Your task to perform on an android device: Open Chrome and go to settings Image 0: 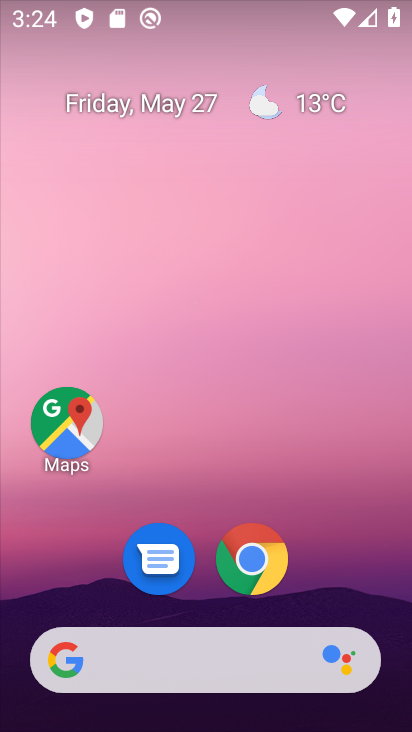
Step 0: drag from (318, 692) to (156, 16)
Your task to perform on an android device: Open Chrome and go to settings Image 1: 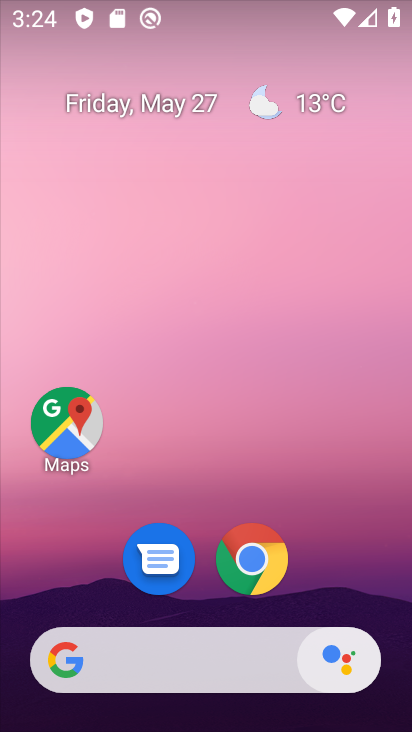
Step 1: drag from (251, 607) to (141, 96)
Your task to perform on an android device: Open Chrome and go to settings Image 2: 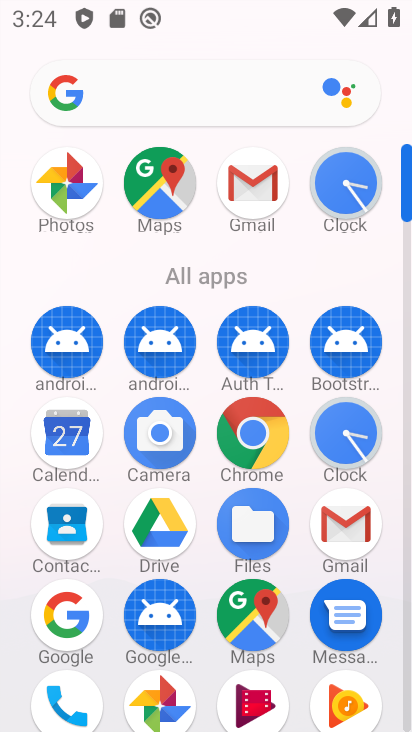
Step 2: drag from (211, 410) to (150, 145)
Your task to perform on an android device: Open Chrome and go to settings Image 3: 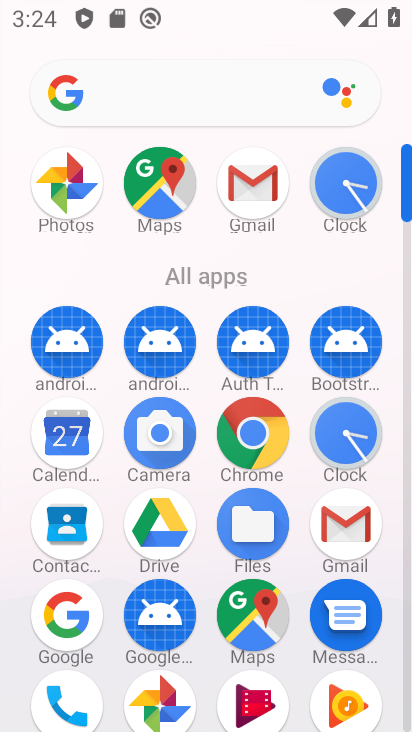
Step 3: click (207, 178)
Your task to perform on an android device: Open Chrome and go to settings Image 4: 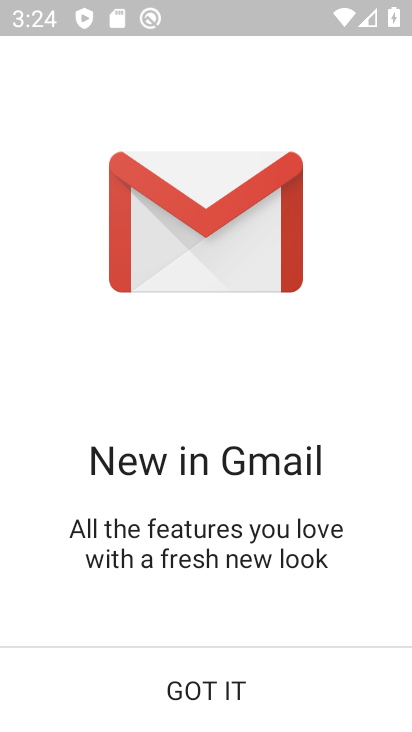
Step 4: press back button
Your task to perform on an android device: Open Chrome and go to settings Image 5: 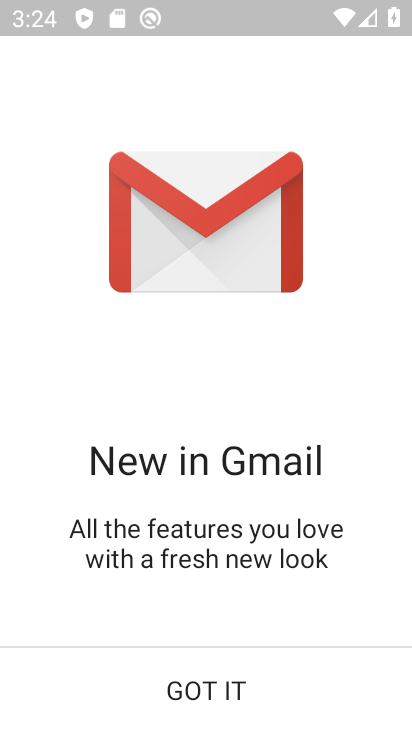
Step 5: press back button
Your task to perform on an android device: Open Chrome and go to settings Image 6: 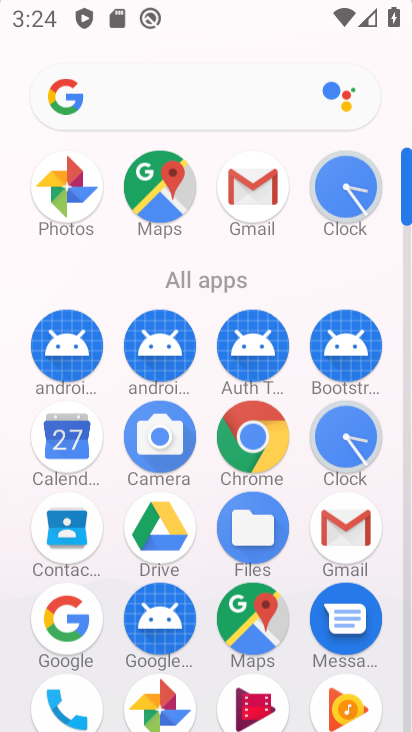
Step 6: press back button
Your task to perform on an android device: Open Chrome and go to settings Image 7: 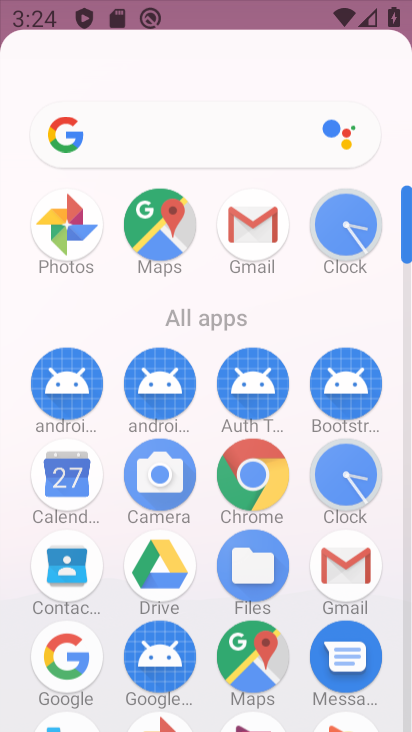
Step 7: click (240, 684)
Your task to perform on an android device: Open Chrome and go to settings Image 8: 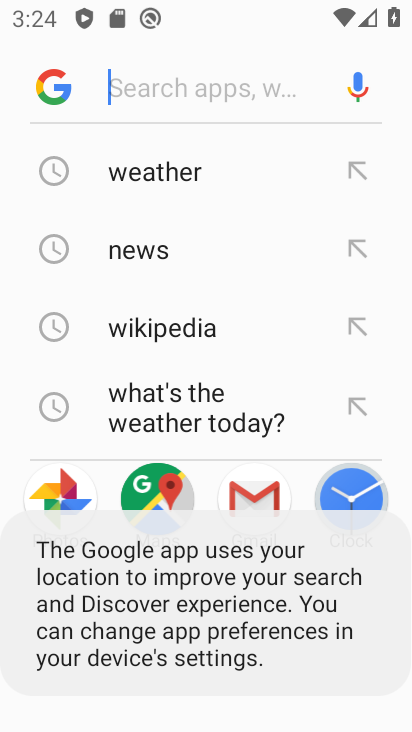
Step 8: drag from (309, 624) to (135, 43)
Your task to perform on an android device: Open Chrome and go to settings Image 9: 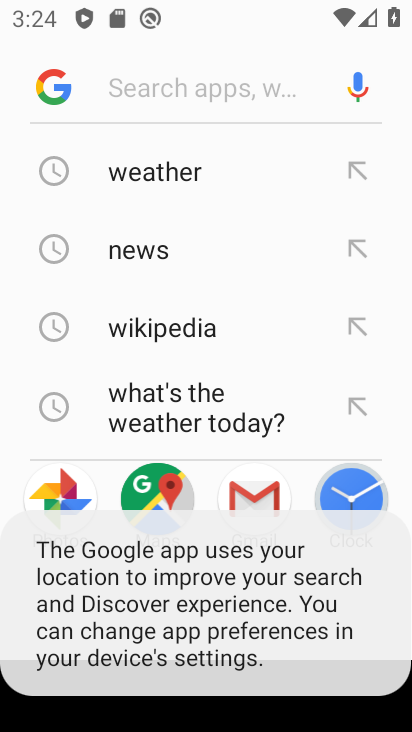
Step 9: drag from (186, 70) to (181, 28)
Your task to perform on an android device: Open Chrome and go to settings Image 10: 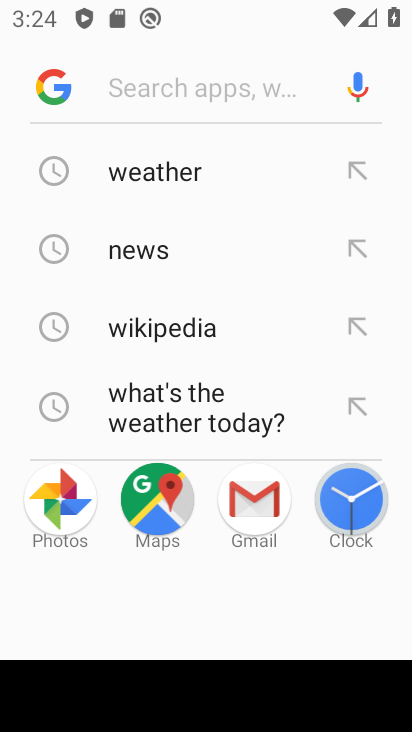
Step 10: press home button
Your task to perform on an android device: Open Chrome and go to settings Image 11: 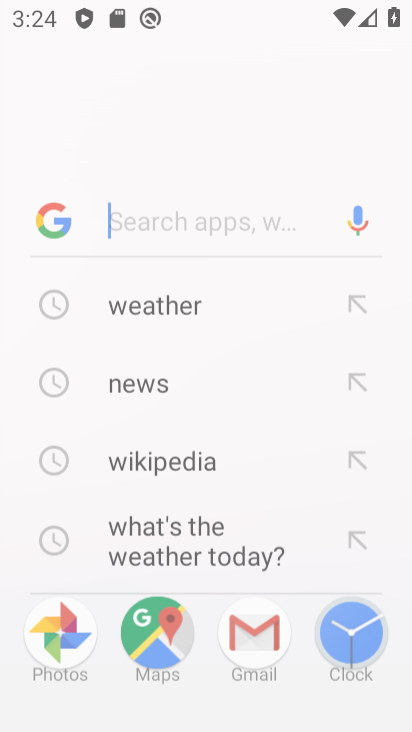
Step 11: press home button
Your task to perform on an android device: Open Chrome and go to settings Image 12: 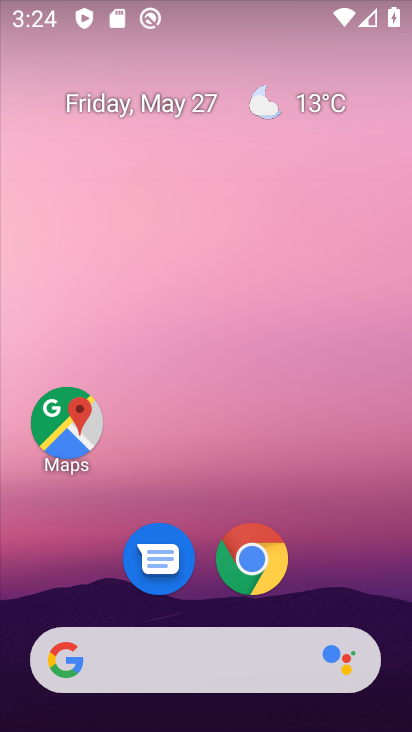
Step 12: press home button
Your task to perform on an android device: Open Chrome and go to settings Image 13: 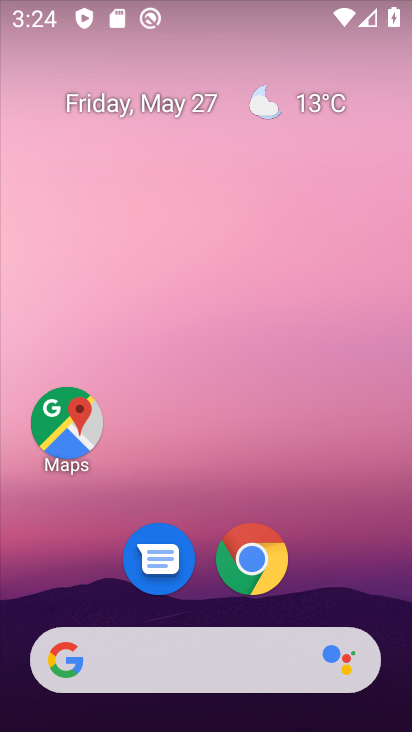
Step 13: drag from (269, 539) to (171, 71)
Your task to perform on an android device: Open Chrome and go to settings Image 14: 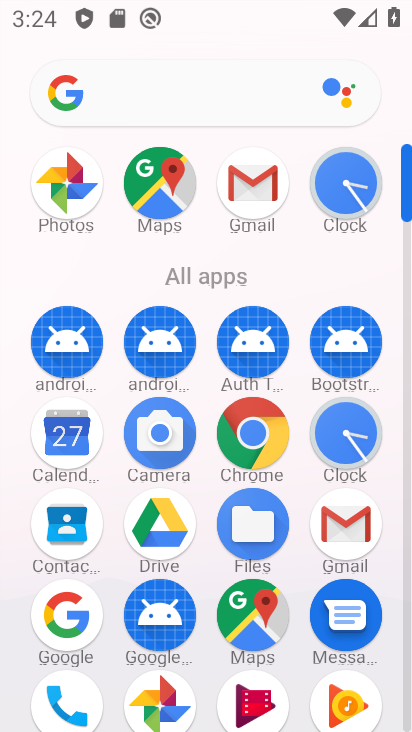
Step 14: drag from (281, 603) to (125, 8)
Your task to perform on an android device: Open Chrome and go to settings Image 15: 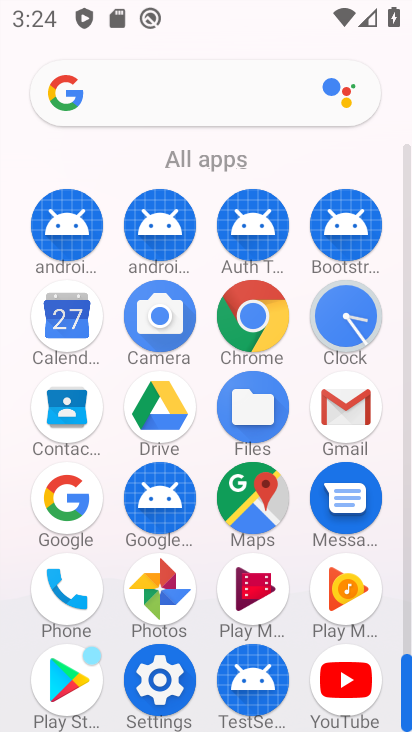
Step 15: click (151, 681)
Your task to perform on an android device: Open Chrome and go to settings Image 16: 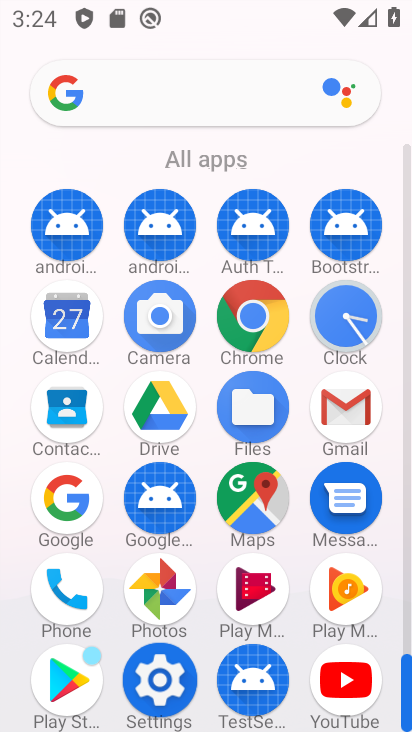
Step 16: drag from (150, 683) to (166, 722)
Your task to perform on an android device: Open Chrome and go to settings Image 17: 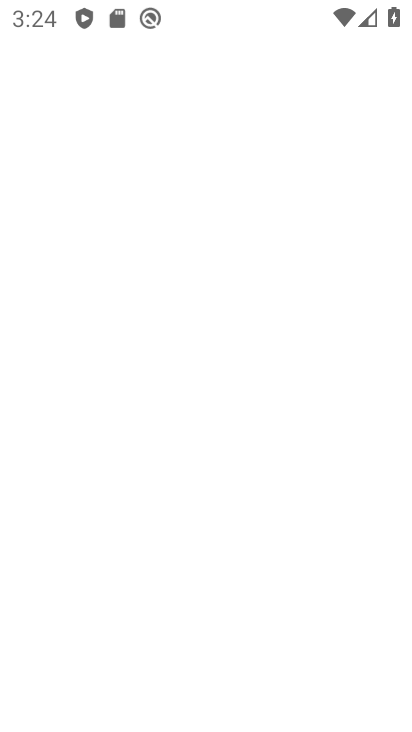
Step 17: click (144, 647)
Your task to perform on an android device: Open Chrome and go to settings Image 18: 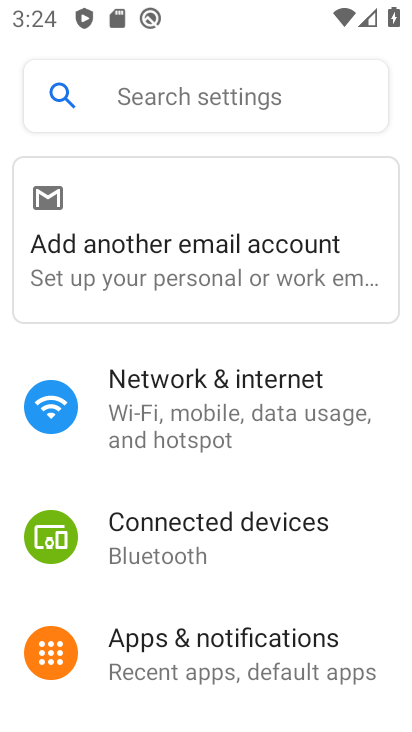
Step 18: drag from (219, 383) to (171, 154)
Your task to perform on an android device: Open Chrome and go to settings Image 19: 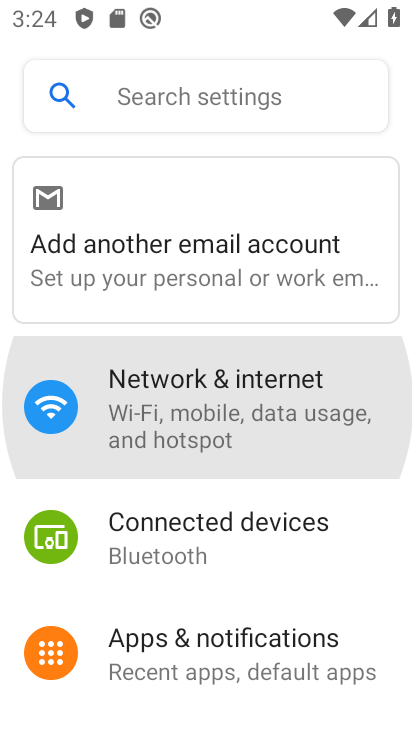
Step 19: drag from (186, 427) to (138, 119)
Your task to perform on an android device: Open Chrome and go to settings Image 20: 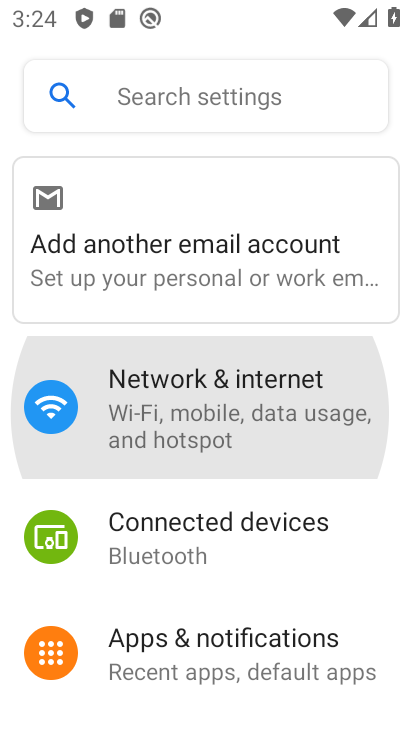
Step 20: drag from (258, 434) to (248, 181)
Your task to perform on an android device: Open Chrome and go to settings Image 21: 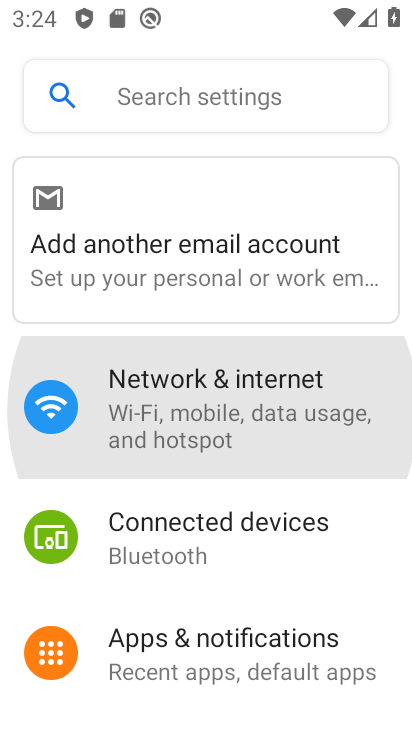
Step 21: drag from (248, 419) to (187, 126)
Your task to perform on an android device: Open Chrome and go to settings Image 22: 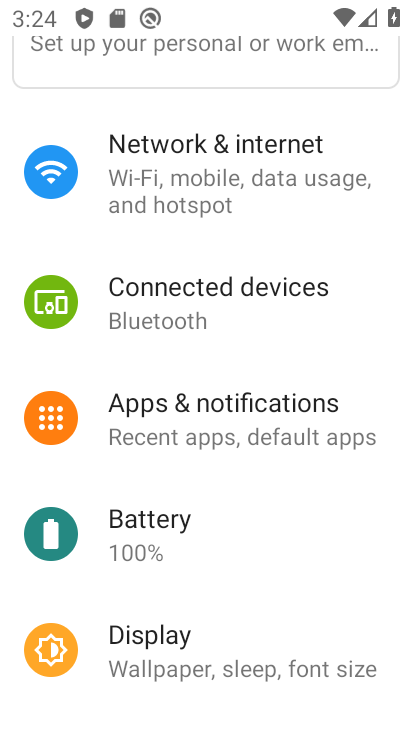
Step 22: drag from (195, 406) to (164, 114)
Your task to perform on an android device: Open Chrome and go to settings Image 23: 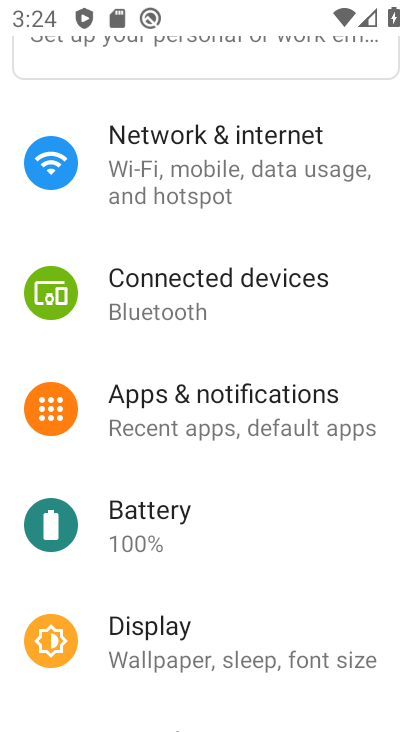
Step 23: drag from (155, 348) to (128, 115)
Your task to perform on an android device: Open Chrome and go to settings Image 24: 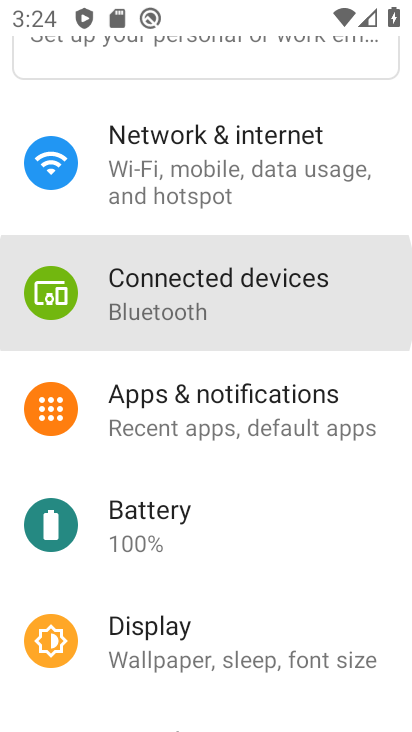
Step 24: drag from (160, 412) to (116, 122)
Your task to perform on an android device: Open Chrome and go to settings Image 25: 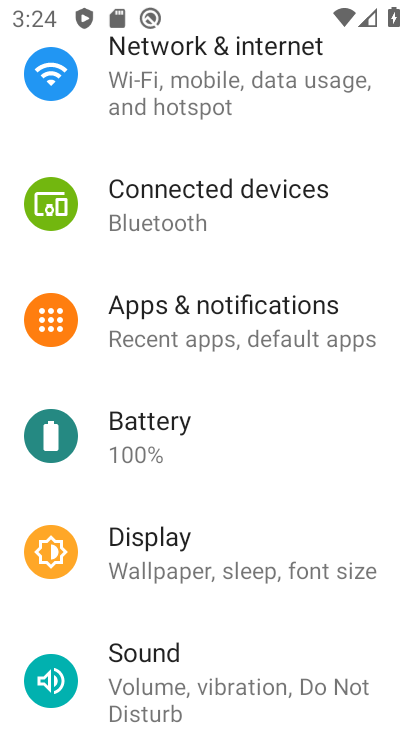
Step 25: drag from (149, 399) to (142, 101)
Your task to perform on an android device: Open Chrome and go to settings Image 26: 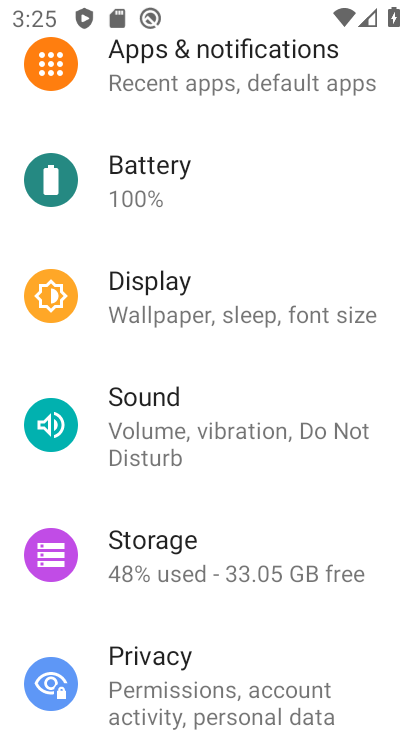
Step 26: drag from (174, 432) to (135, 111)
Your task to perform on an android device: Open Chrome and go to settings Image 27: 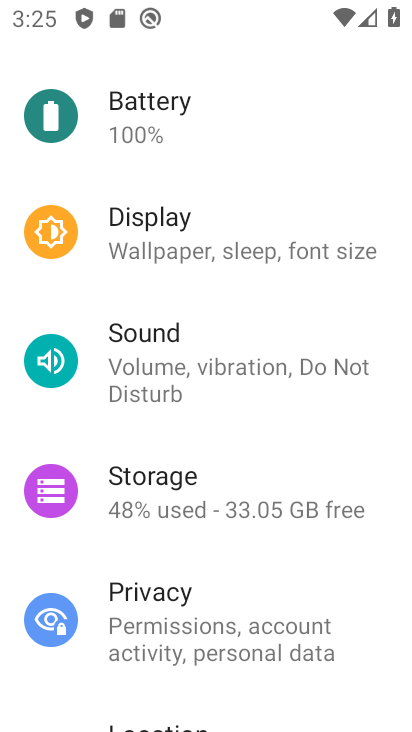
Step 27: click (167, 240)
Your task to perform on an android device: Open Chrome and go to settings Image 28: 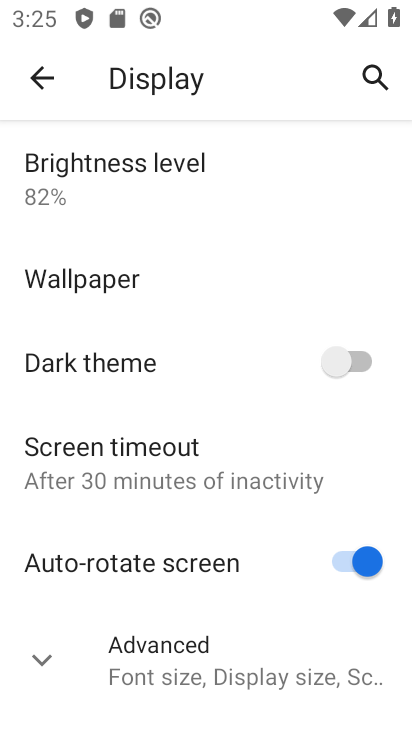
Step 28: click (40, 73)
Your task to perform on an android device: Open Chrome and go to settings Image 29: 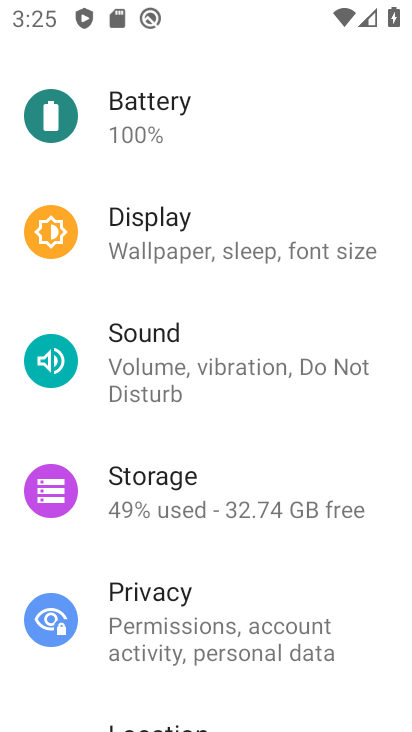
Step 29: press back button
Your task to perform on an android device: Open Chrome and go to settings Image 30: 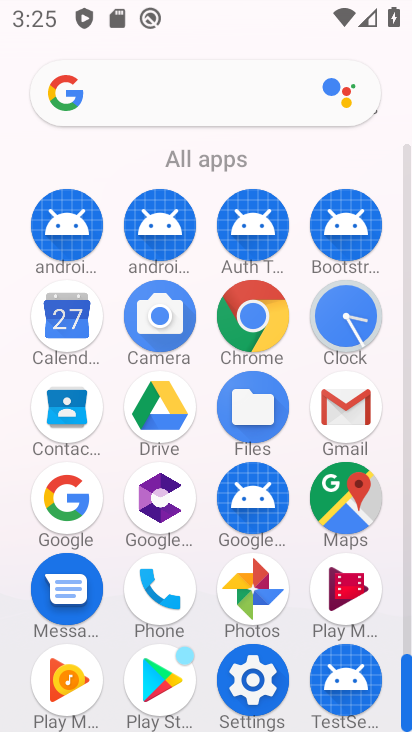
Step 30: click (254, 675)
Your task to perform on an android device: Open Chrome and go to settings Image 31: 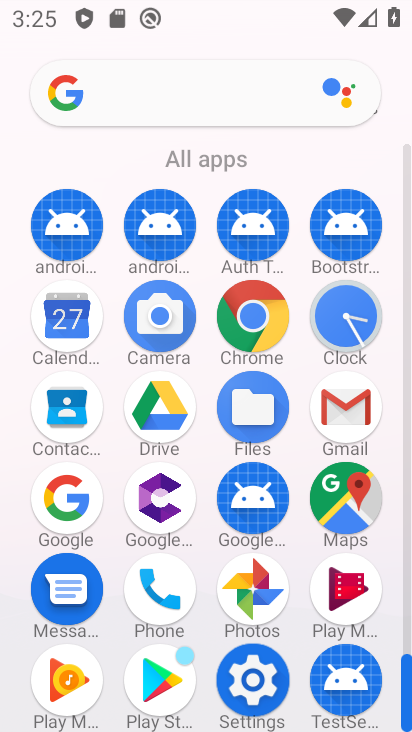
Step 31: click (253, 674)
Your task to perform on an android device: Open Chrome and go to settings Image 32: 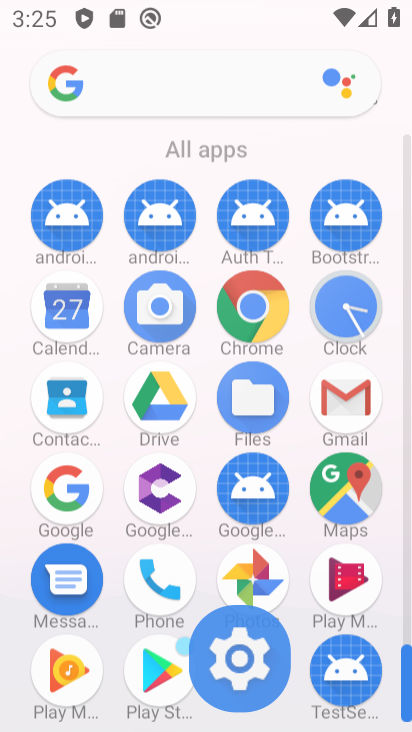
Step 32: click (259, 670)
Your task to perform on an android device: Open Chrome and go to settings Image 33: 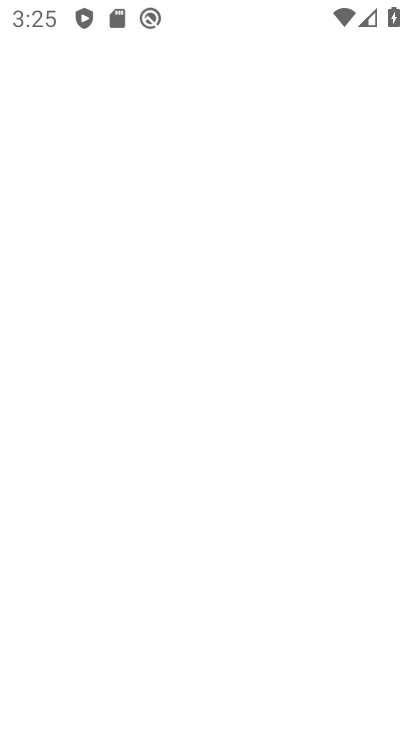
Step 33: click (261, 671)
Your task to perform on an android device: Open Chrome and go to settings Image 34: 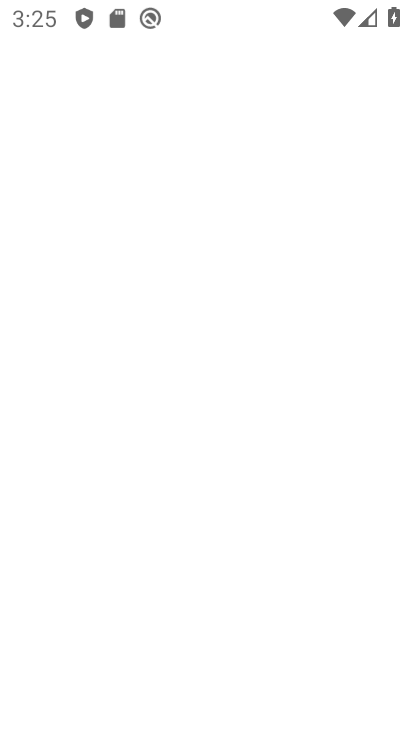
Step 34: click (261, 671)
Your task to perform on an android device: Open Chrome and go to settings Image 35: 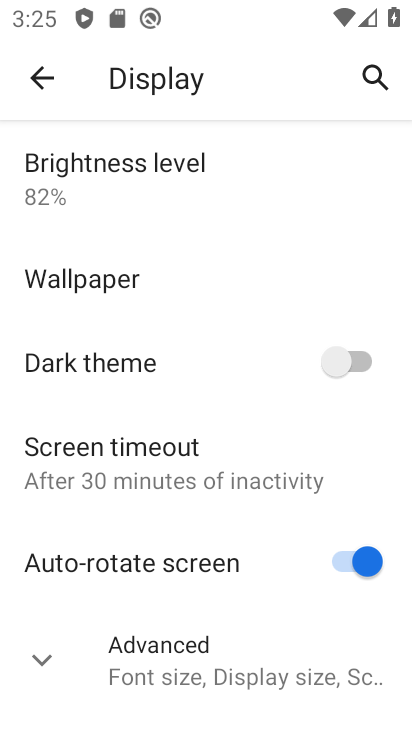
Step 35: click (29, 80)
Your task to perform on an android device: Open Chrome and go to settings Image 36: 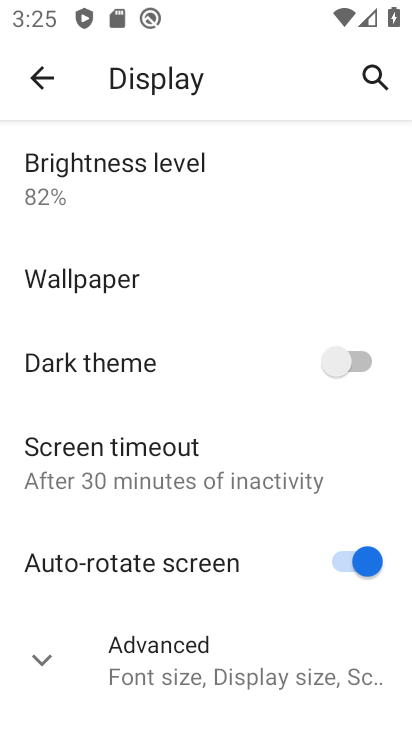
Step 36: click (35, 73)
Your task to perform on an android device: Open Chrome and go to settings Image 37: 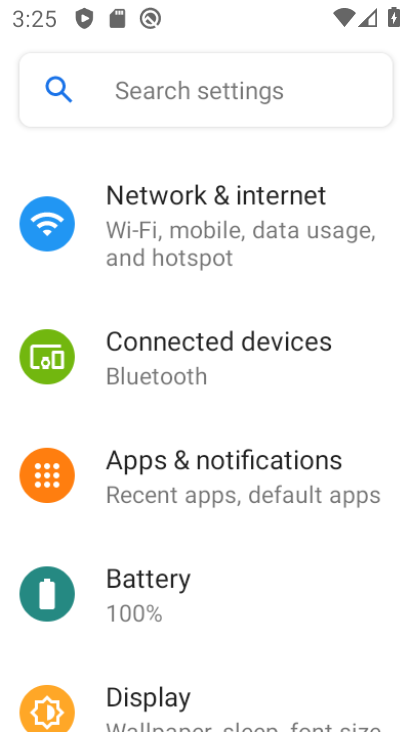
Step 37: click (41, 71)
Your task to perform on an android device: Open Chrome and go to settings Image 38: 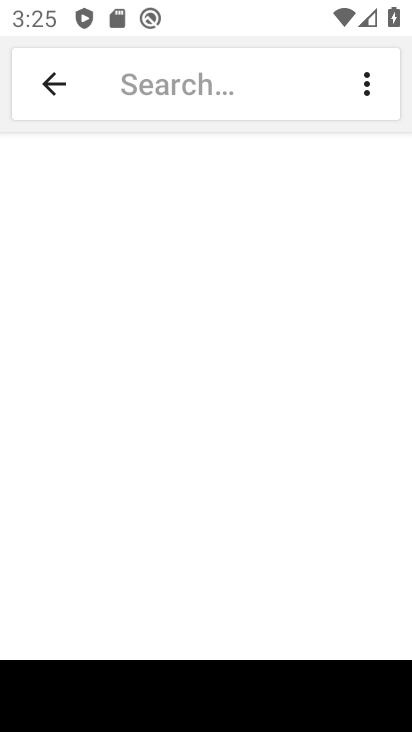
Step 38: drag from (203, 603) to (109, 39)
Your task to perform on an android device: Open Chrome and go to settings Image 39: 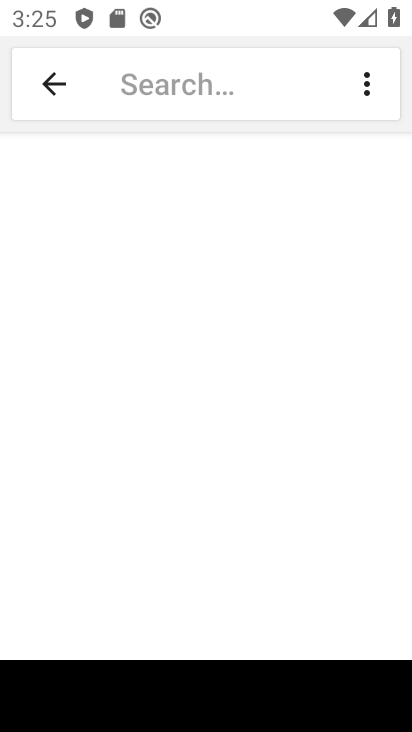
Step 39: click (50, 80)
Your task to perform on an android device: Open Chrome and go to settings Image 40: 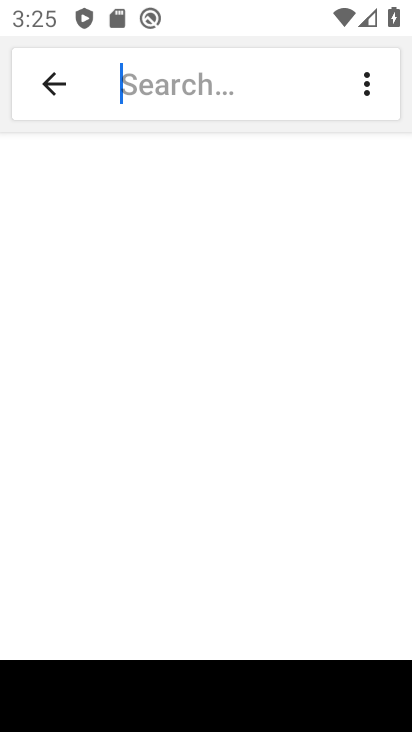
Step 40: click (50, 80)
Your task to perform on an android device: Open Chrome and go to settings Image 41: 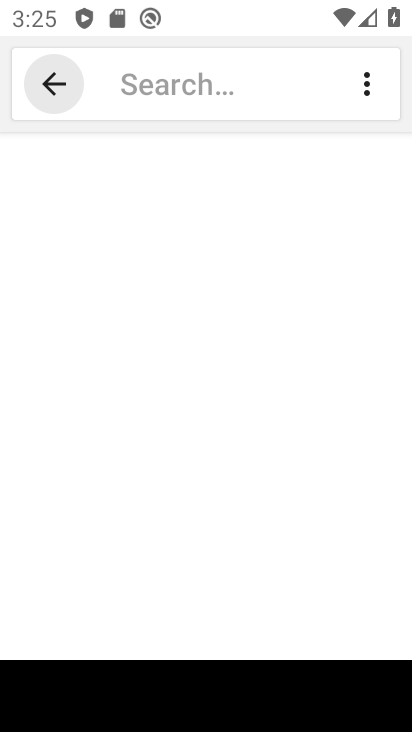
Step 41: click (50, 80)
Your task to perform on an android device: Open Chrome and go to settings Image 42: 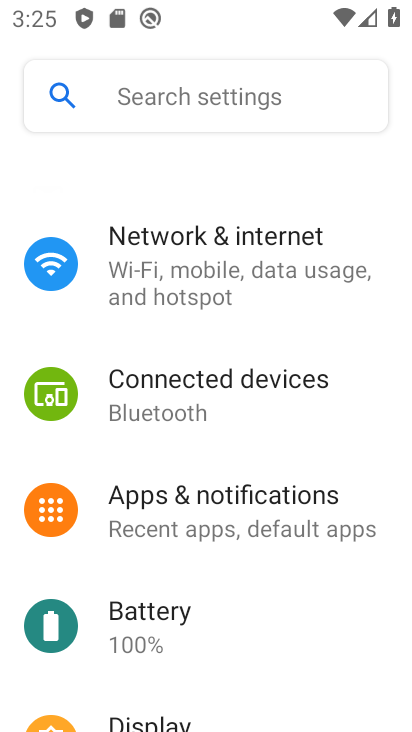
Step 42: drag from (185, 525) to (164, 279)
Your task to perform on an android device: Open Chrome and go to settings Image 43: 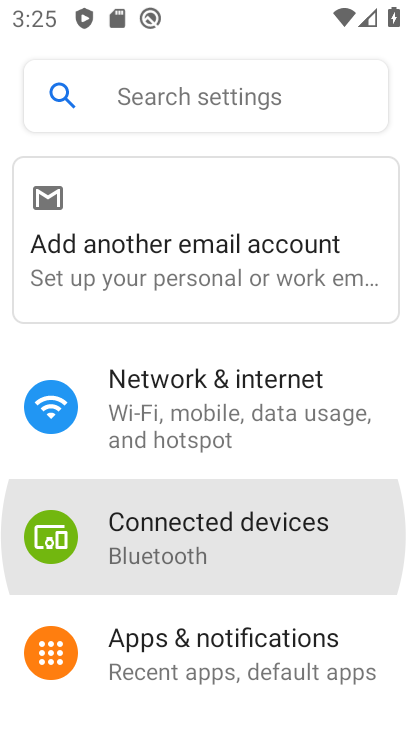
Step 43: drag from (224, 511) to (203, 250)
Your task to perform on an android device: Open Chrome and go to settings Image 44: 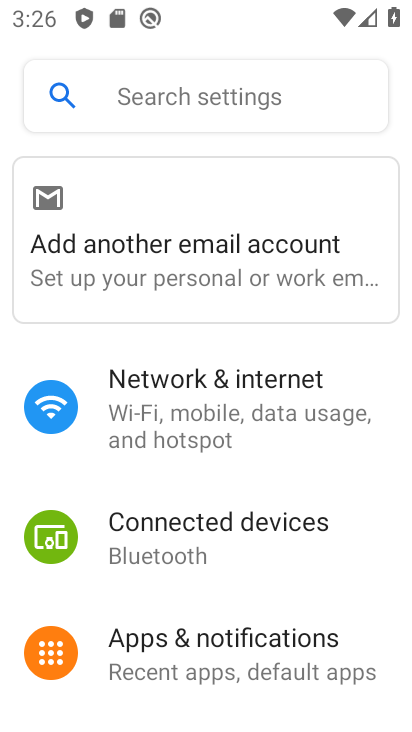
Step 44: press back button
Your task to perform on an android device: Open Chrome and go to settings Image 45: 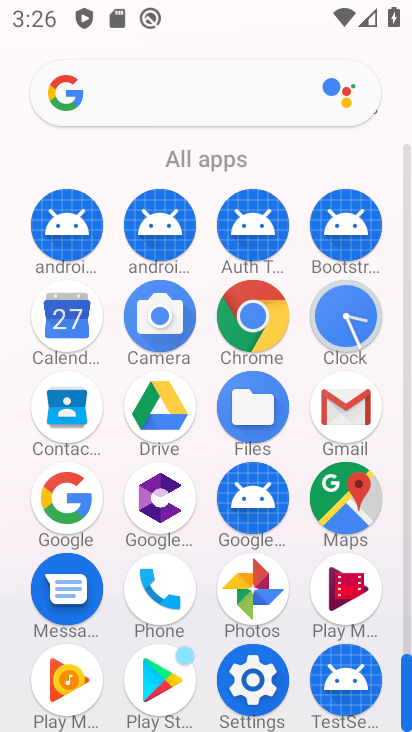
Step 45: click (250, 684)
Your task to perform on an android device: Open Chrome and go to settings Image 46: 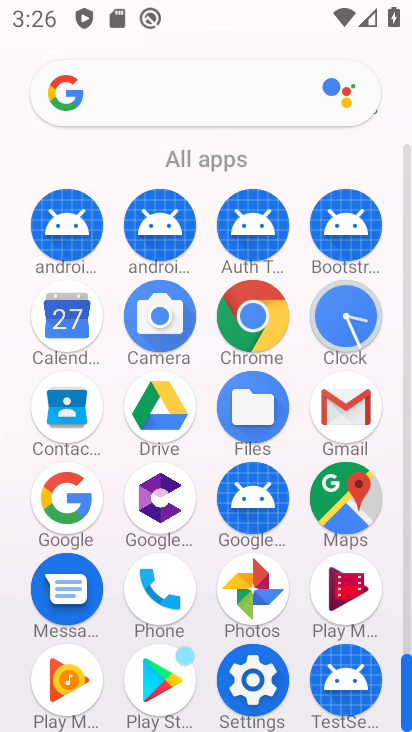
Step 46: click (250, 684)
Your task to perform on an android device: Open Chrome and go to settings Image 47: 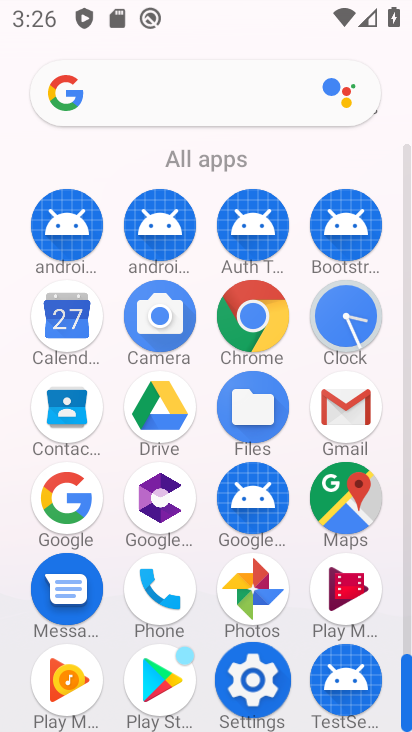
Step 47: click (251, 684)
Your task to perform on an android device: Open Chrome and go to settings Image 48: 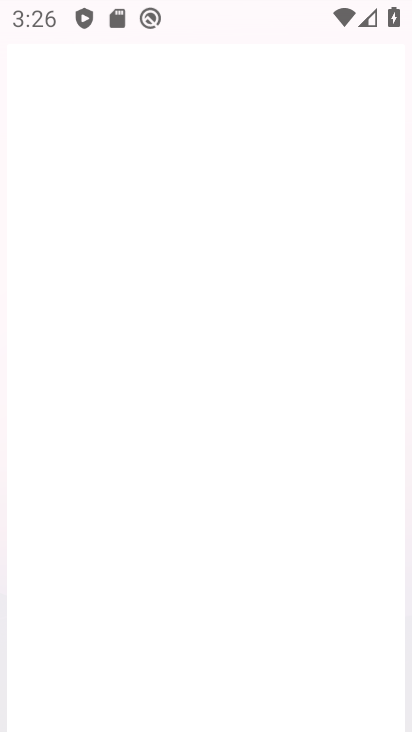
Step 48: click (255, 691)
Your task to perform on an android device: Open Chrome and go to settings Image 49: 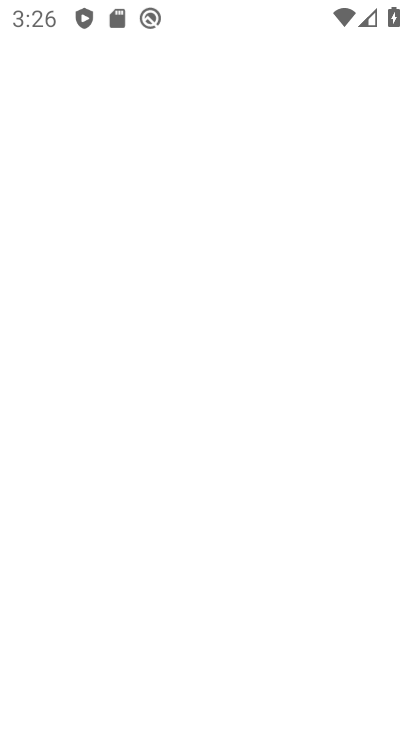
Step 49: click (257, 665)
Your task to perform on an android device: Open Chrome and go to settings Image 50: 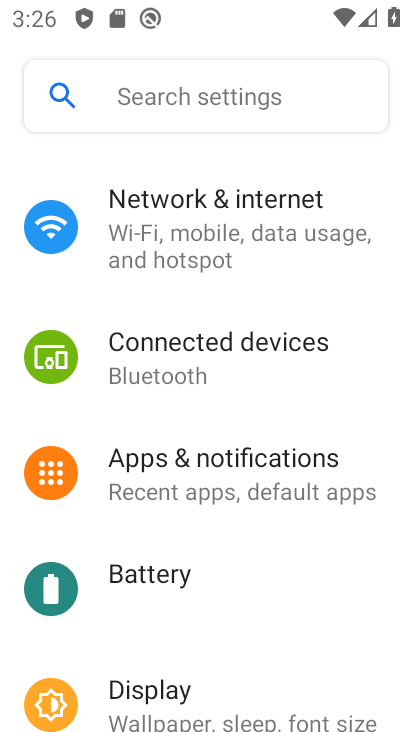
Step 50: click (252, 663)
Your task to perform on an android device: Open Chrome and go to settings Image 51: 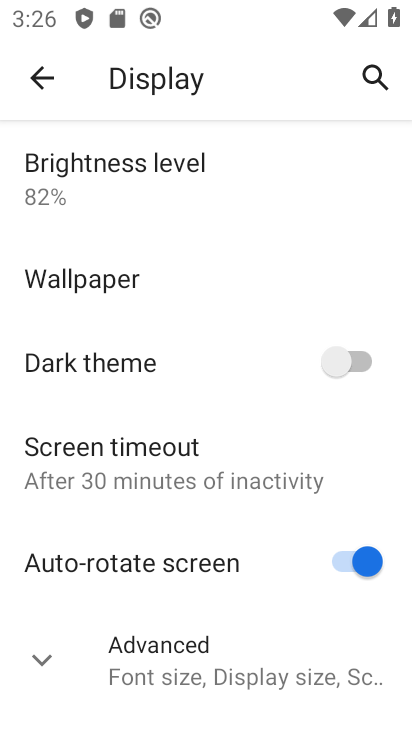
Step 51: task complete